Your task to perform on an android device: What is the capital of Switzerland? Image 0: 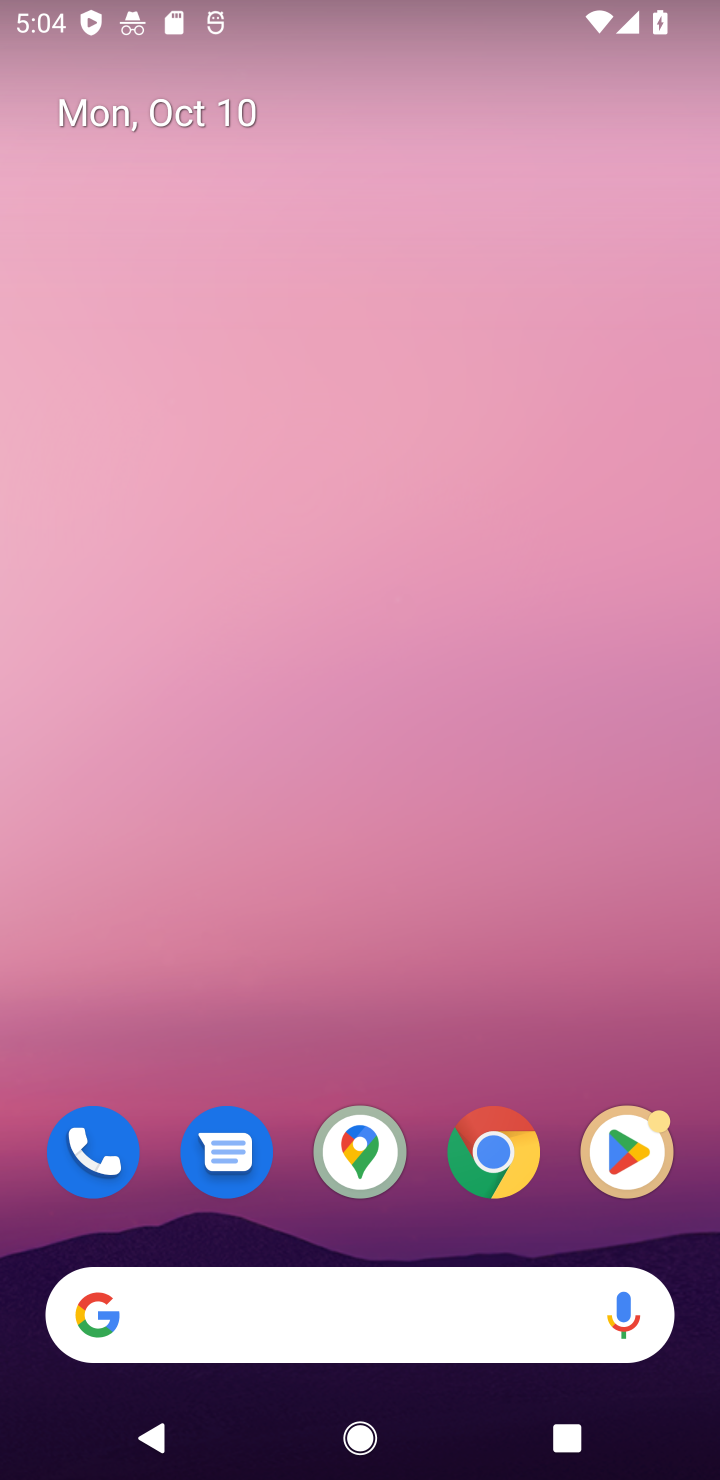
Step 0: click (491, 1150)
Your task to perform on an android device: What is the capital of Switzerland? Image 1: 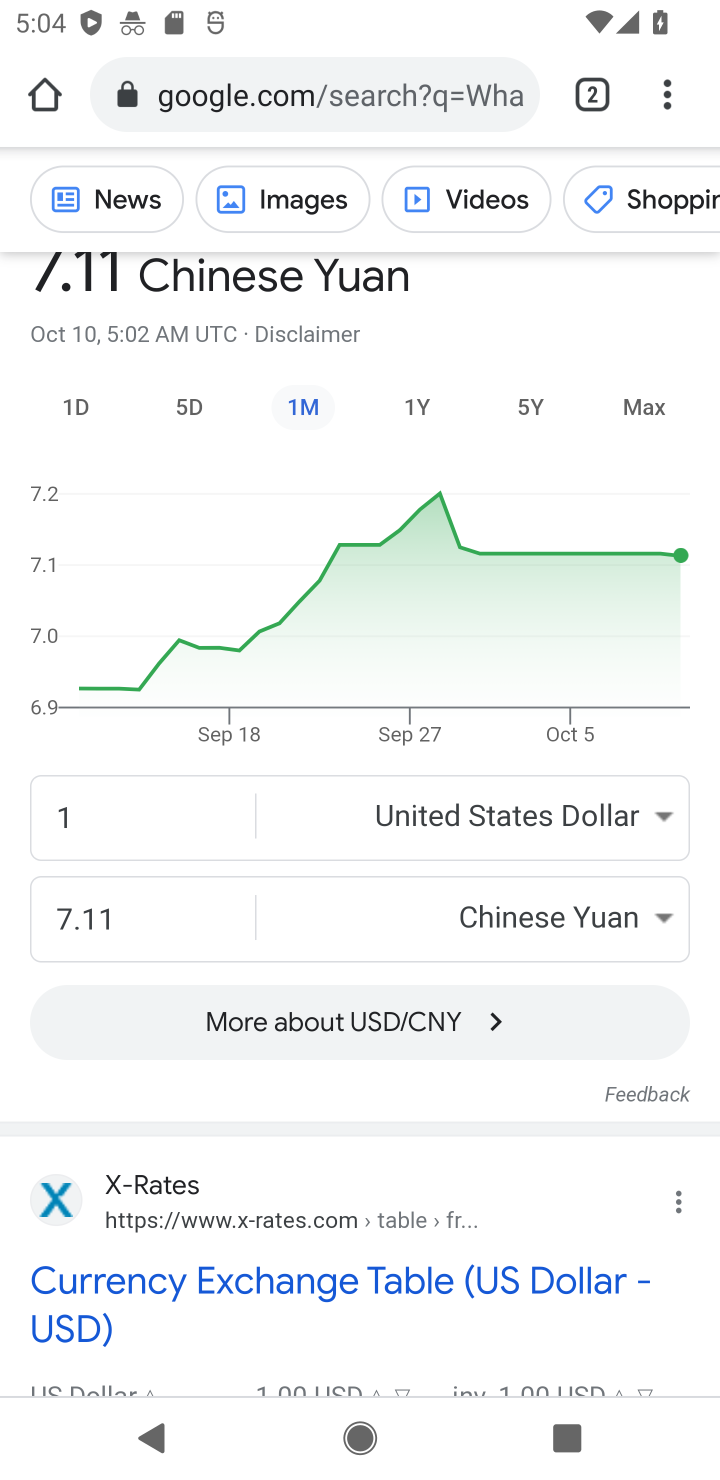
Step 1: click (340, 90)
Your task to perform on an android device: What is the capital of Switzerland? Image 2: 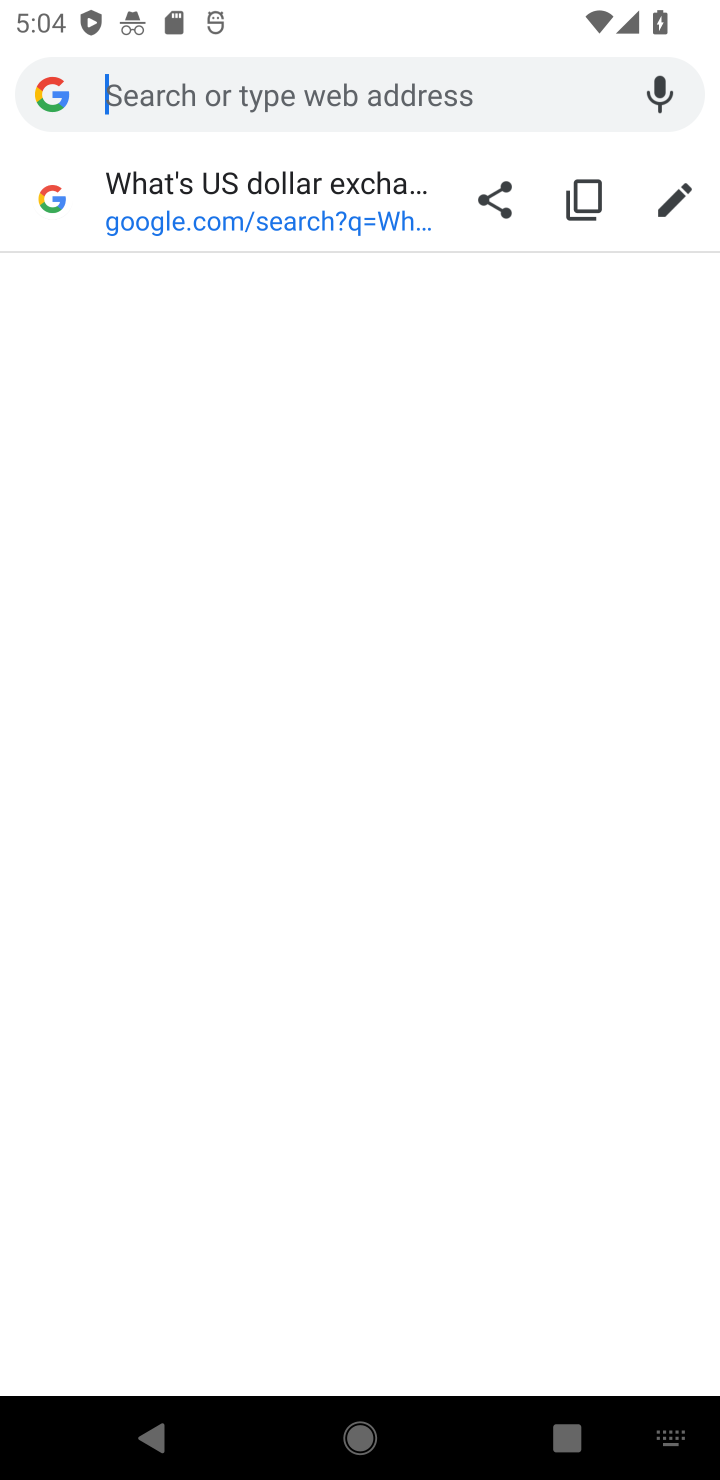
Step 2: type "What is the capital of Switzerland?"
Your task to perform on an android device: What is the capital of Switzerland? Image 3: 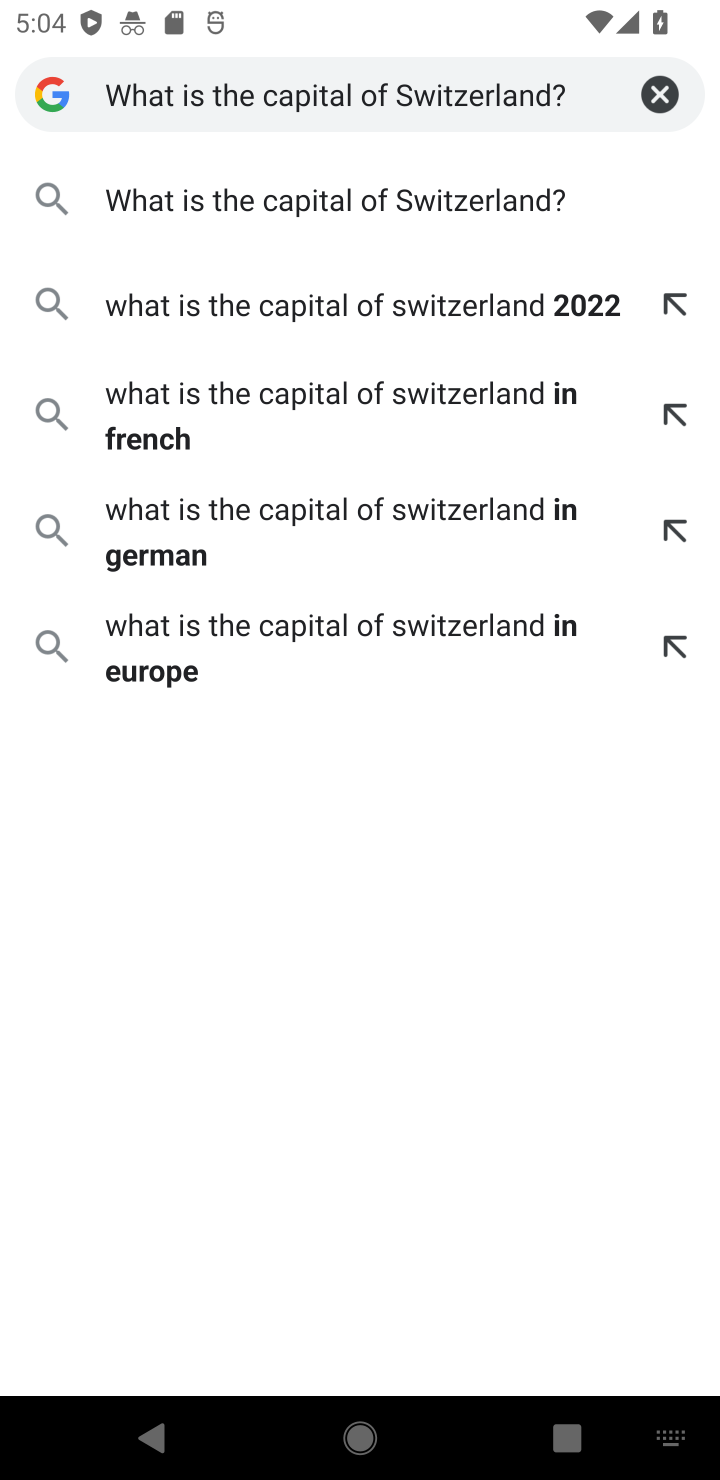
Step 3: click (319, 199)
Your task to perform on an android device: What is the capital of Switzerland? Image 4: 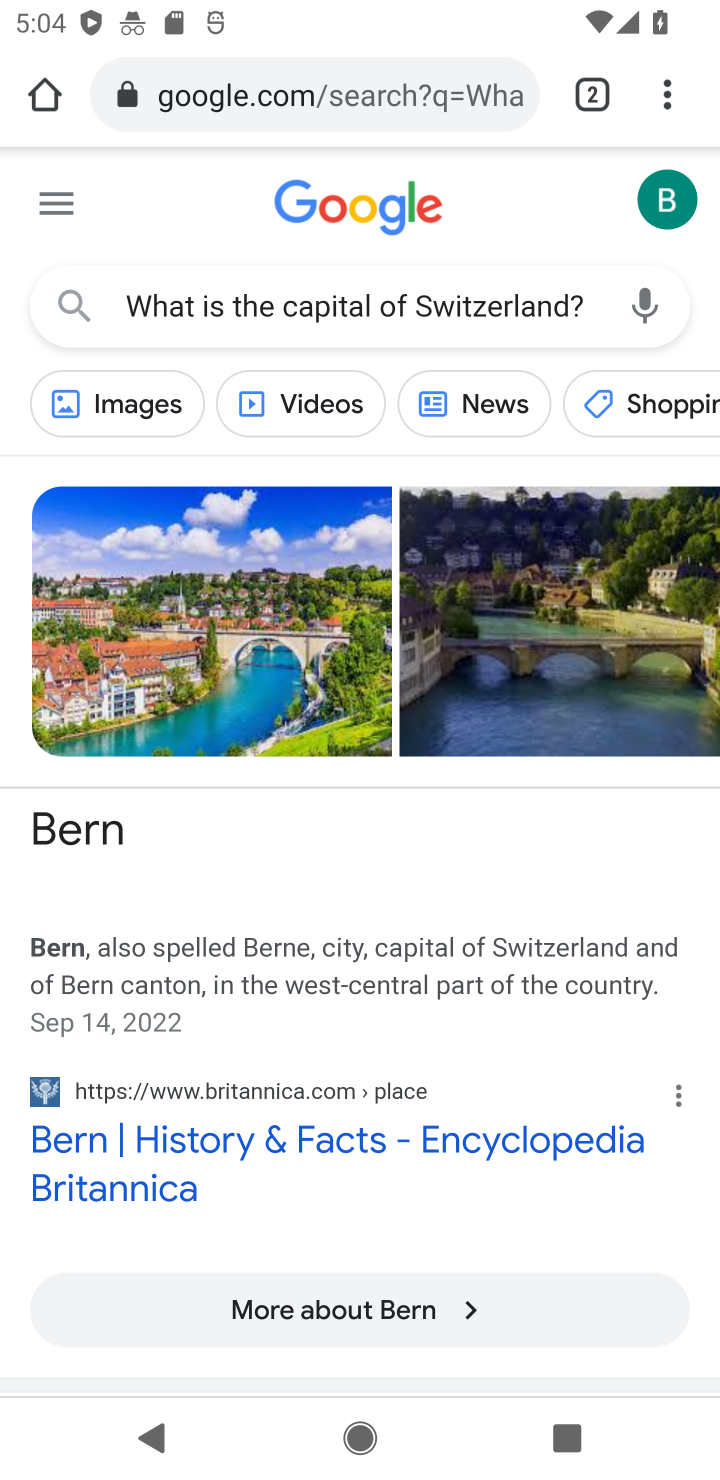
Step 4: task complete